Your task to perform on an android device: toggle priority inbox in the gmail app Image 0: 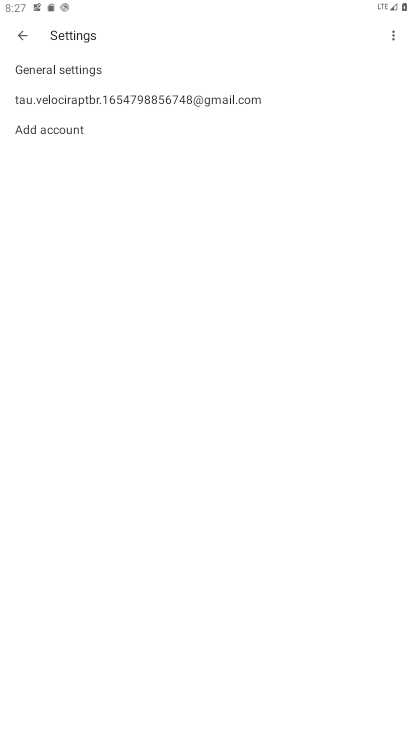
Step 0: press home button
Your task to perform on an android device: toggle priority inbox in the gmail app Image 1: 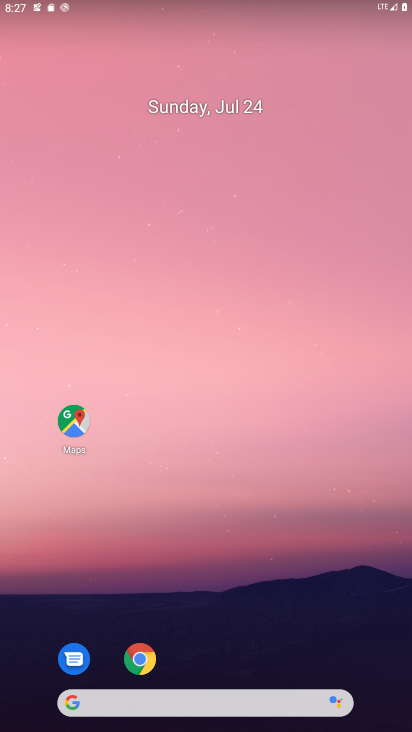
Step 1: drag from (229, 725) to (229, 385)
Your task to perform on an android device: toggle priority inbox in the gmail app Image 2: 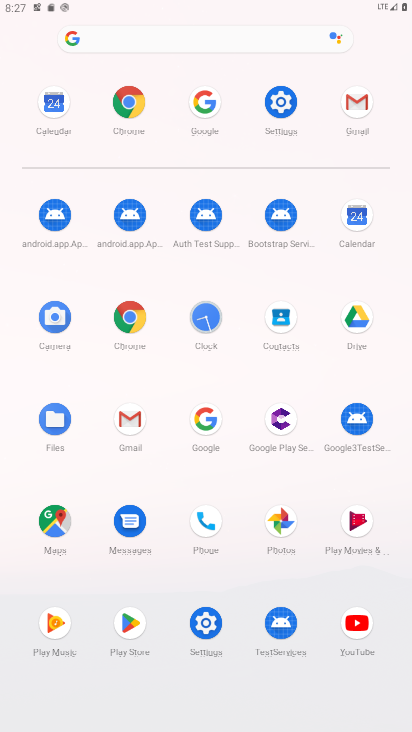
Step 2: click (129, 419)
Your task to perform on an android device: toggle priority inbox in the gmail app Image 3: 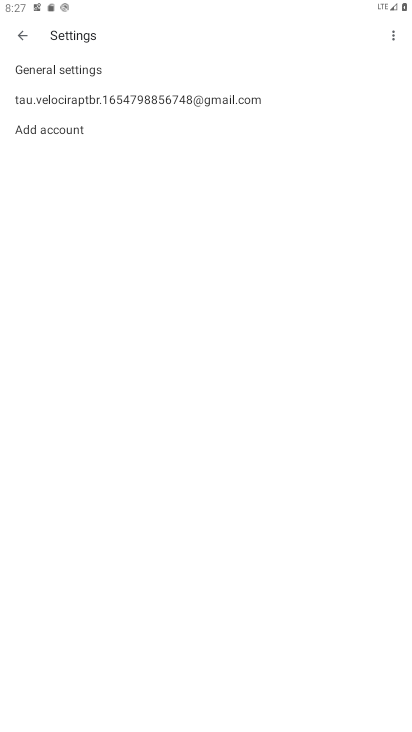
Step 3: click (146, 97)
Your task to perform on an android device: toggle priority inbox in the gmail app Image 4: 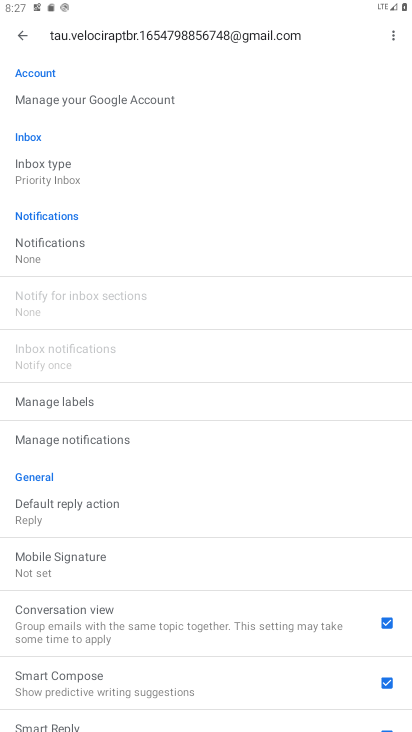
Step 4: click (46, 176)
Your task to perform on an android device: toggle priority inbox in the gmail app Image 5: 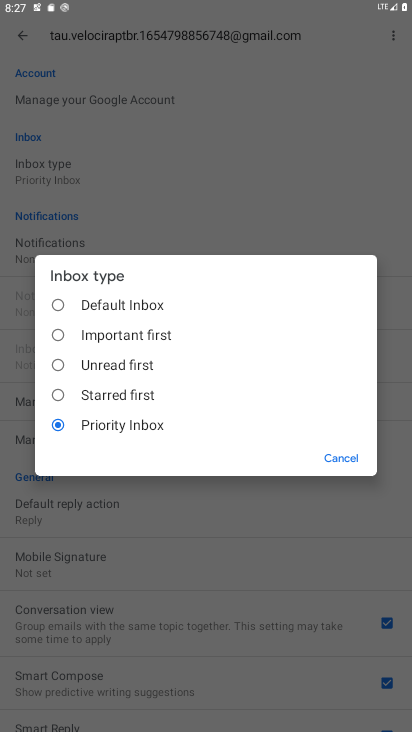
Step 5: click (58, 309)
Your task to perform on an android device: toggle priority inbox in the gmail app Image 6: 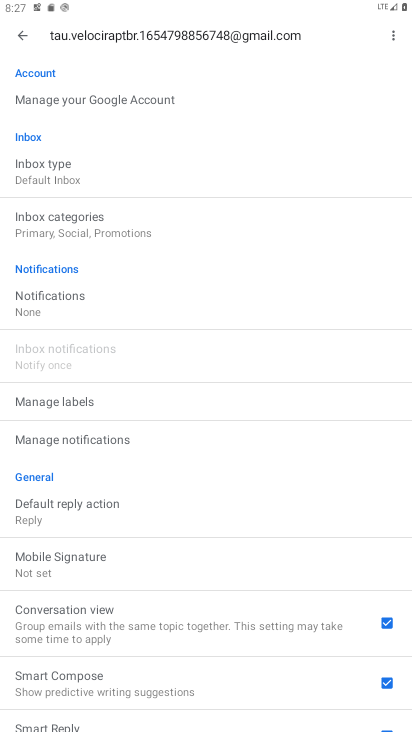
Step 6: task complete